Your task to perform on an android device: toggle translation in the chrome app Image 0: 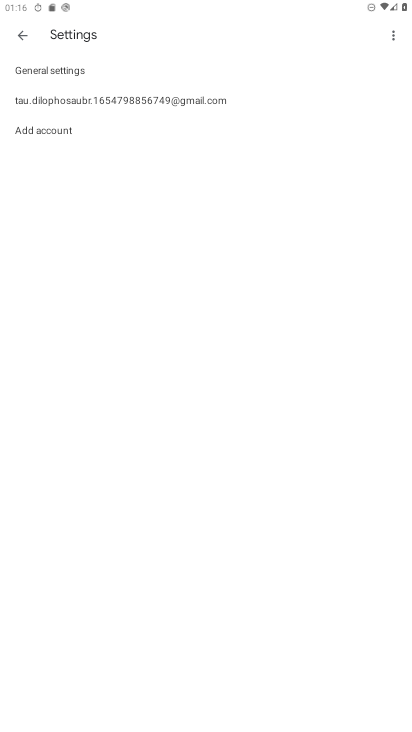
Step 0: press home button
Your task to perform on an android device: toggle translation in the chrome app Image 1: 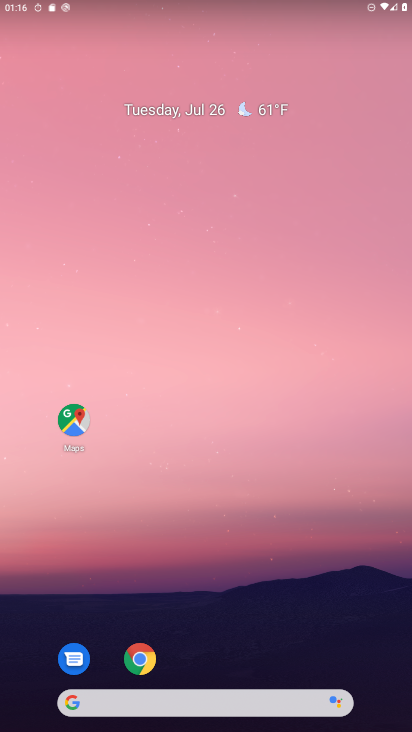
Step 1: click (131, 660)
Your task to perform on an android device: toggle translation in the chrome app Image 2: 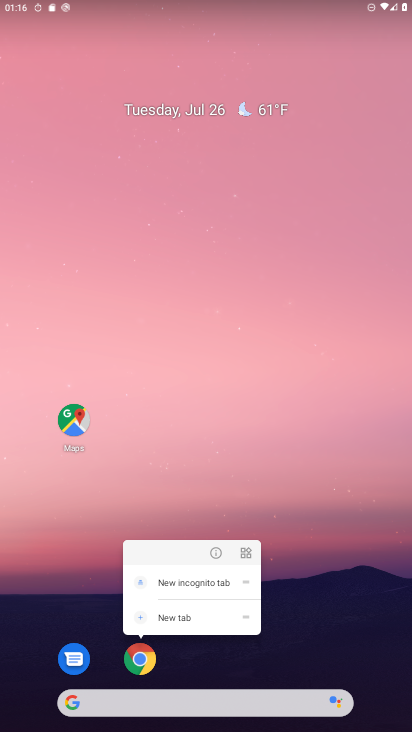
Step 2: click (141, 664)
Your task to perform on an android device: toggle translation in the chrome app Image 3: 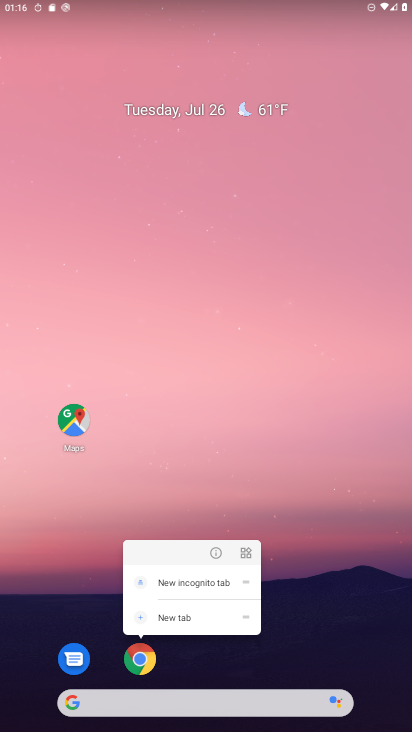
Step 3: click (143, 664)
Your task to perform on an android device: toggle translation in the chrome app Image 4: 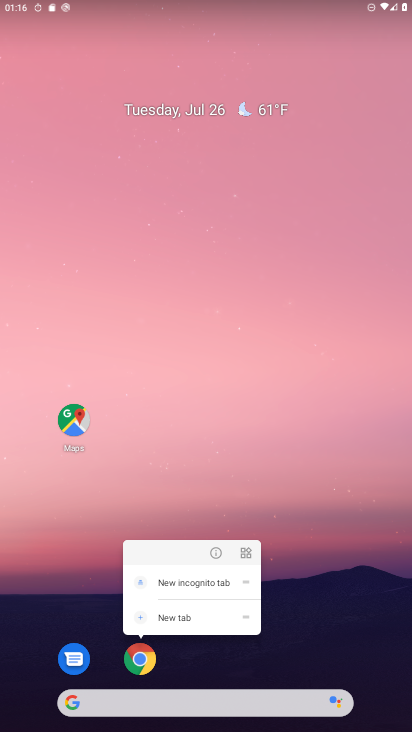
Step 4: task complete